Your task to perform on an android device: turn off javascript in the chrome app Image 0: 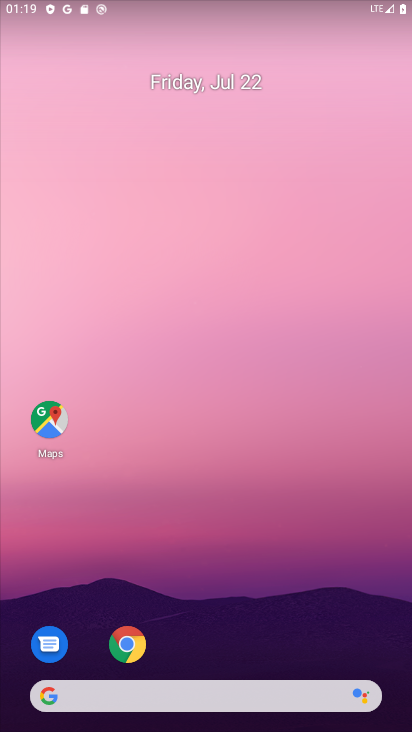
Step 0: click (106, 645)
Your task to perform on an android device: turn off javascript in the chrome app Image 1: 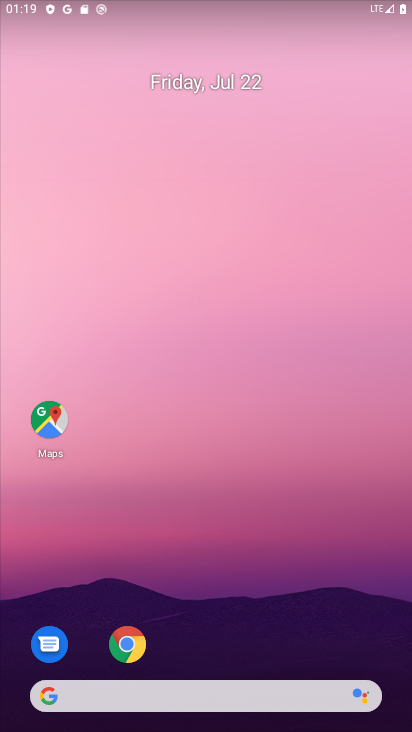
Step 1: click (106, 645)
Your task to perform on an android device: turn off javascript in the chrome app Image 2: 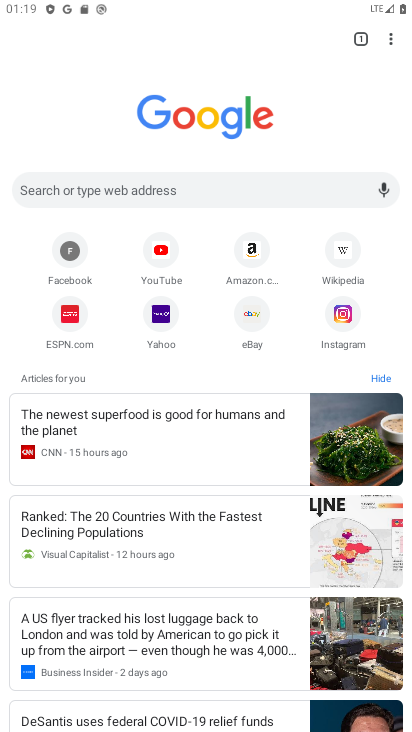
Step 2: click (392, 37)
Your task to perform on an android device: turn off javascript in the chrome app Image 3: 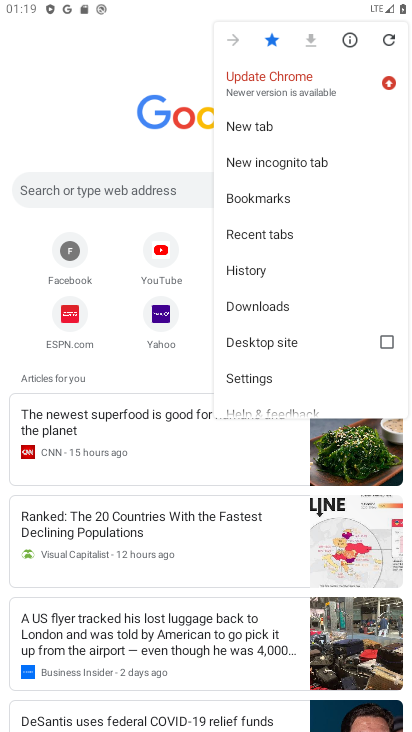
Step 3: click (260, 379)
Your task to perform on an android device: turn off javascript in the chrome app Image 4: 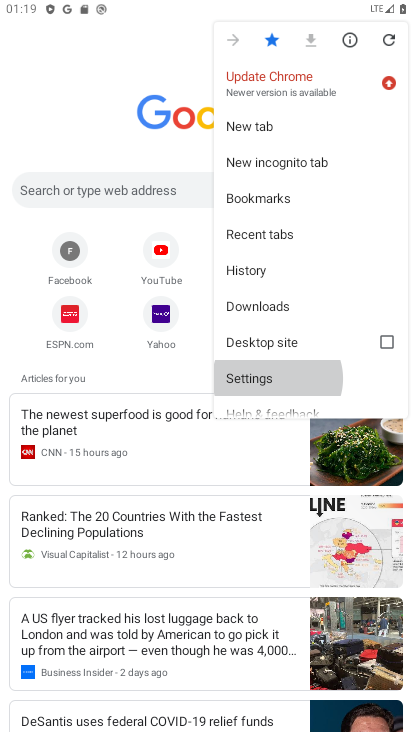
Step 4: click (260, 379)
Your task to perform on an android device: turn off javascript in the chrome app Image 5: 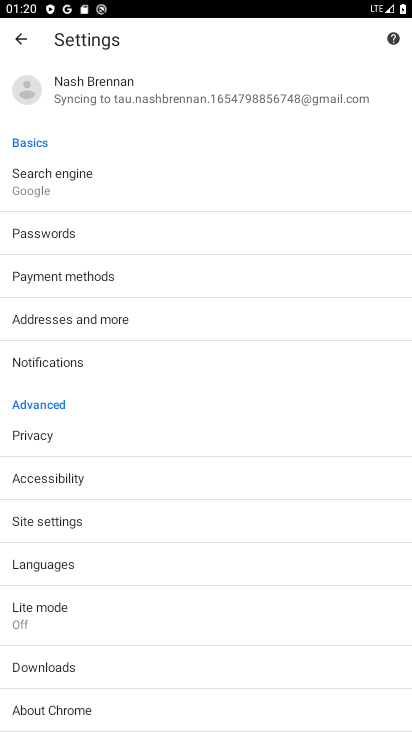
Step 5: click (100, 520)
Your task to perform on an android device: turn off javascript in the chrome app Image 6: 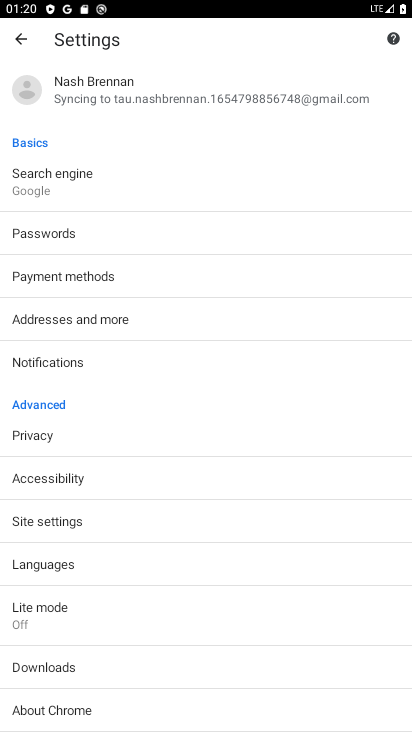
Step 6: click (100, 520)
Your task to perform on an android device: turn off javascript in the chrome app Image 7: 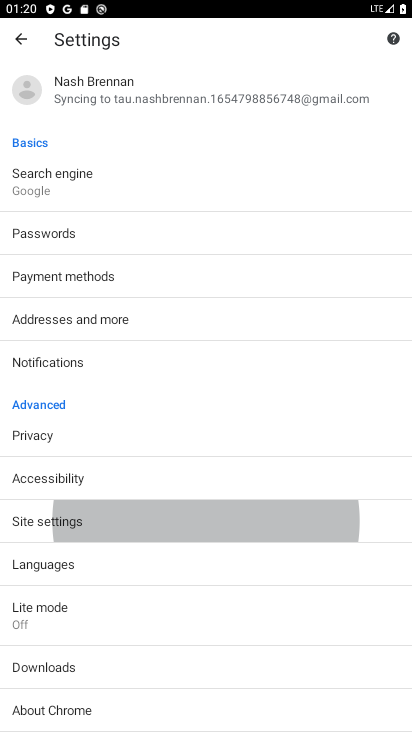
Step 7: click (100, 520)
Your task to perform on an android device: turn off javascript in the chrome app Image 8: 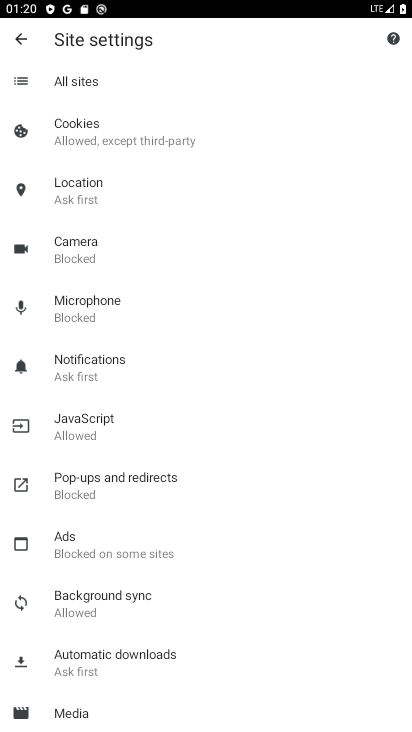
Step 8: click (108, 431)
Your task to perform on an android device: turn off javascript in the chrome app Image 9: 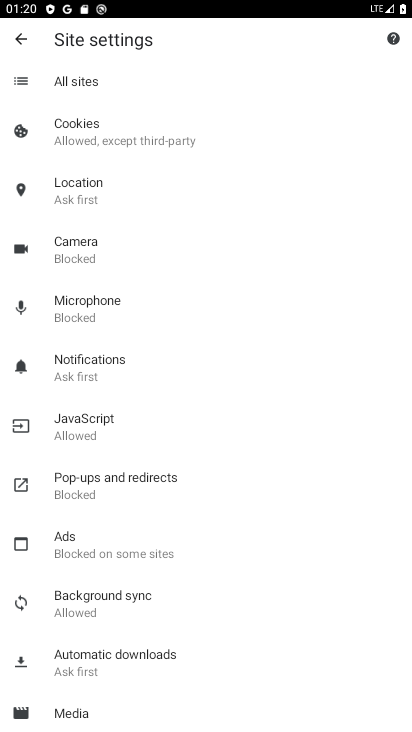
Step 9: click (108, 431)
Your task to perform on an android device: turn off javascript in the chrome app Image 10: 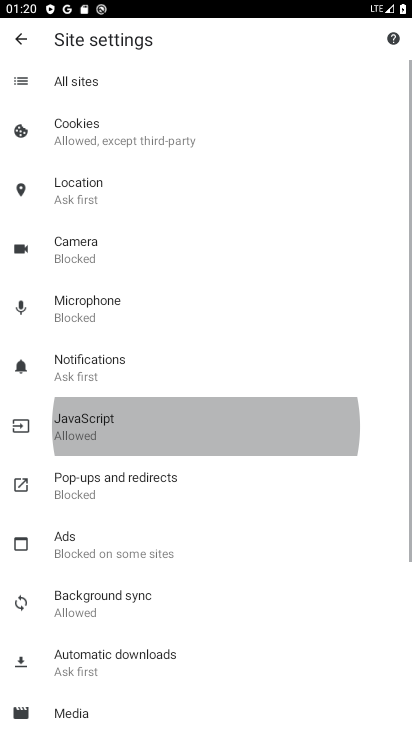
Step 10: click (108, 431)
Your task to perform on an android device: turn off javascript in the chrome app Image 11: 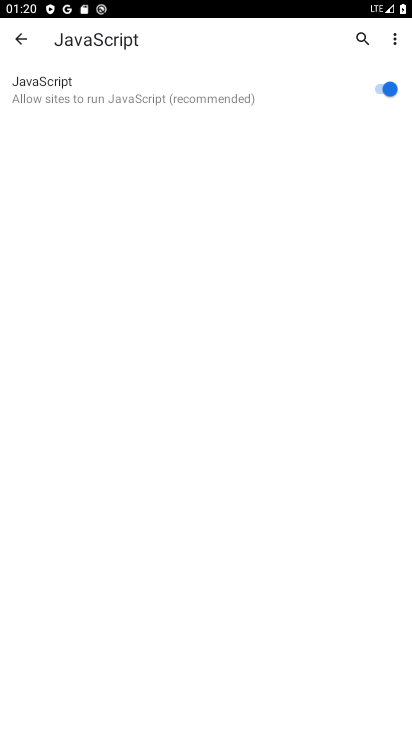
Step 11: click (392, 86)
Your task to perform on an android device: turn off javascript in the chrome app Image 12: 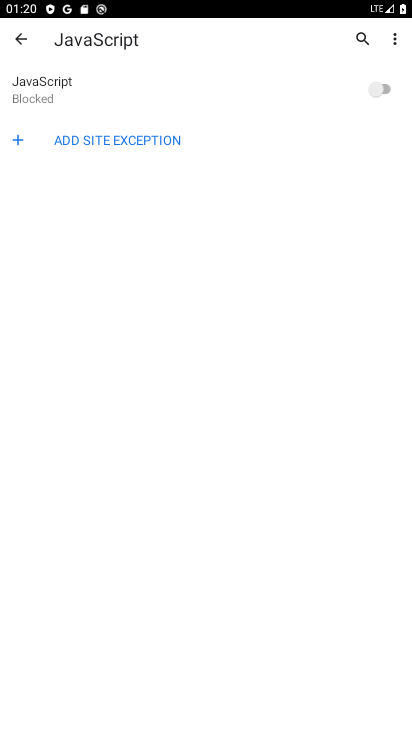
Step 12: task complete